Your task to perform on an android device: Open the phone app and click the voicemail tab. Image 0: 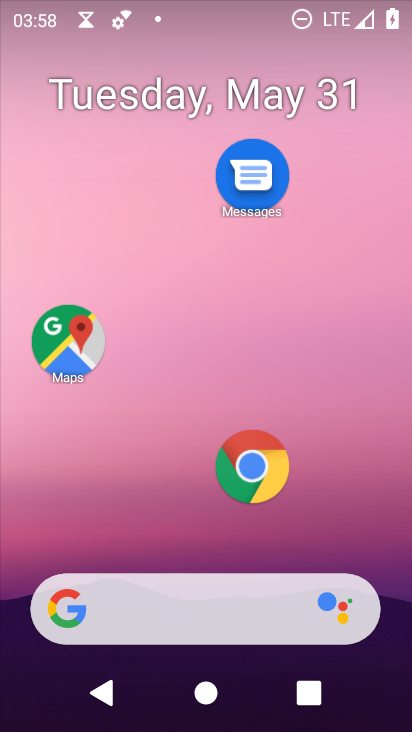
Step 0: drag from (196, 506) to (214, 61)
Your task to perform on an android device: Open the phone app and click the voicemail tab. Image 1: 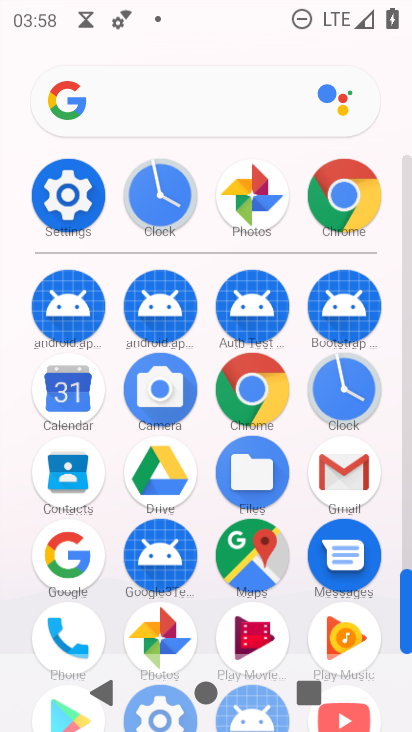
Step 1: drag from (210, 589) to (266, 116)
Your task to perform on an android device: Open the phone app and click the voicemail tab. Image 2: 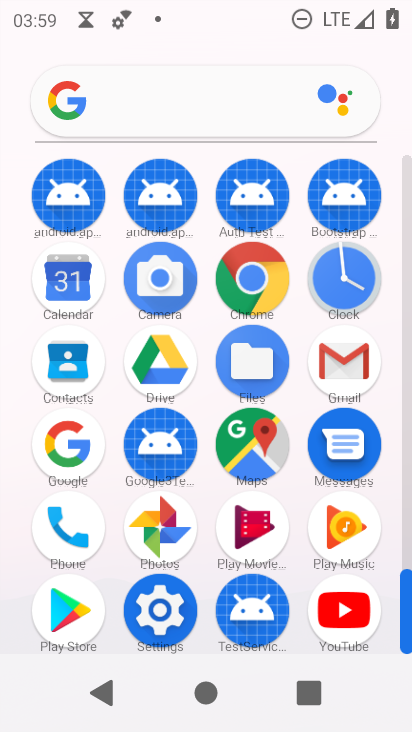
Step 2: click (66, 523)
Your task to perform on an android device: Open the phone app and click the voicemail tab. Image 3: 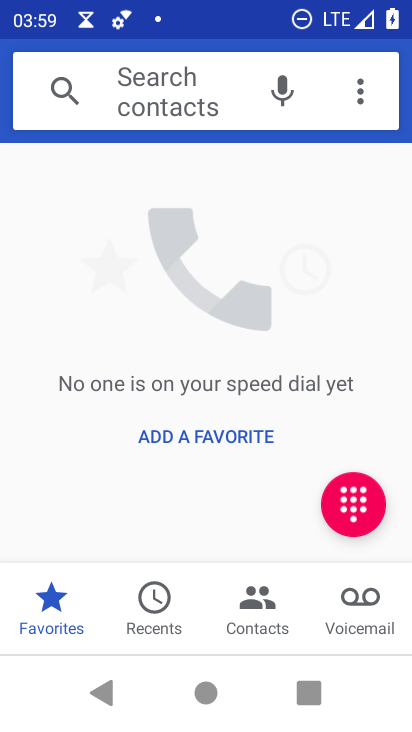
Step 3: click (387, 616)
Your task to perform on an android device: Open the phone app and click the voicemail tab. Image 4: 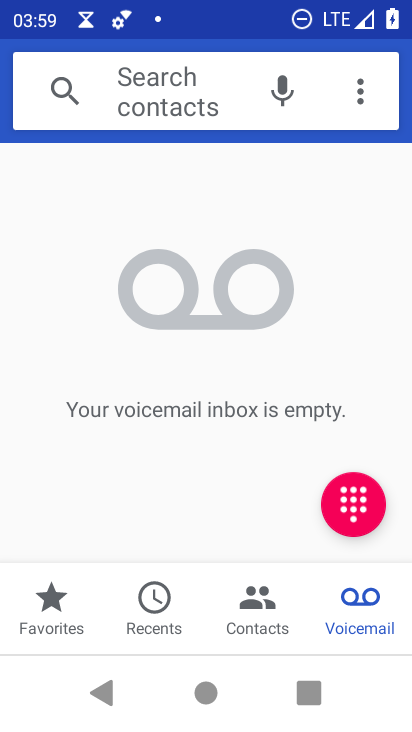
Step 4: task complete